Your task to perform on an android device: turn notification dots on Image 0: 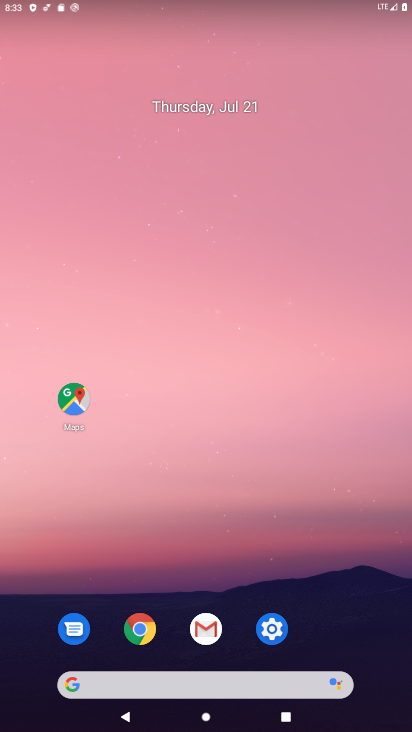
Step 0: click (260, 627)
Your task to perform on an android device: turn notification dots on Image 1: 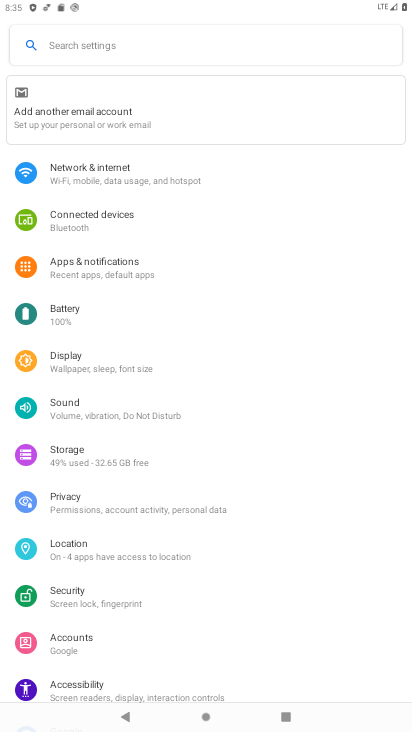
Step 1: click (108, 54)
Your task to perform on an android device: turn notification dots on Image 2: 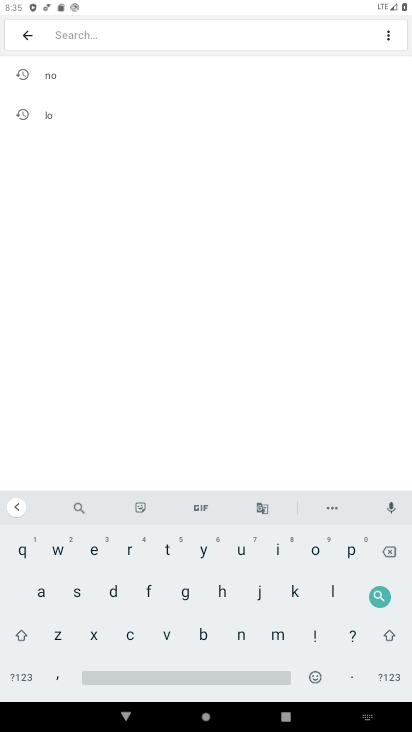
Step 2: click (244, 628)
Your task to perform on an android device: turn notification dots on Image 3: 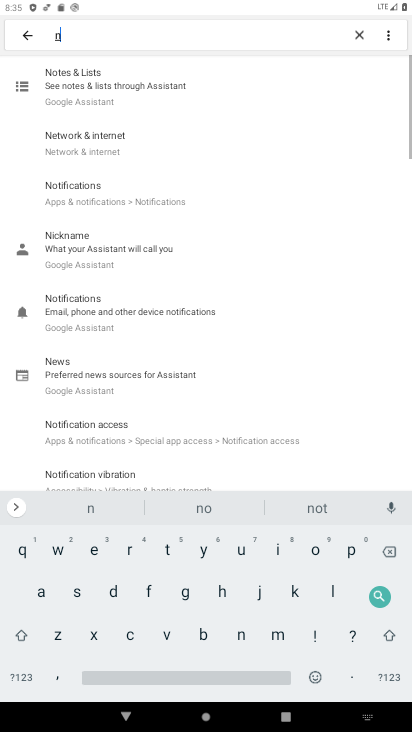
Step 3: click (320, 553)
Your task to perform on an android device: turn notification dots on Image 4: 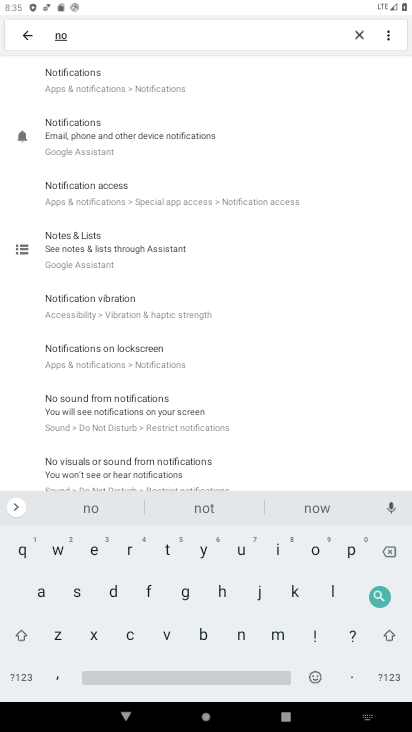
Step 4: click (68, 80)
Your task to perform on an android device: turn notification dots on Image 5: 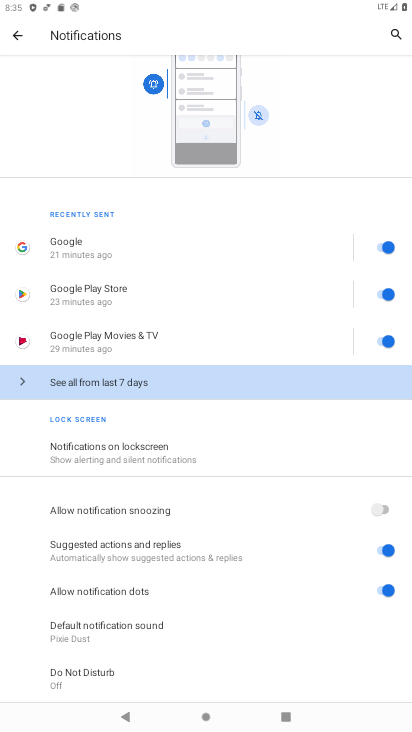
Step 5: click (242, 600)
Your task to perform on an android device: turn notification dots on Image 6: 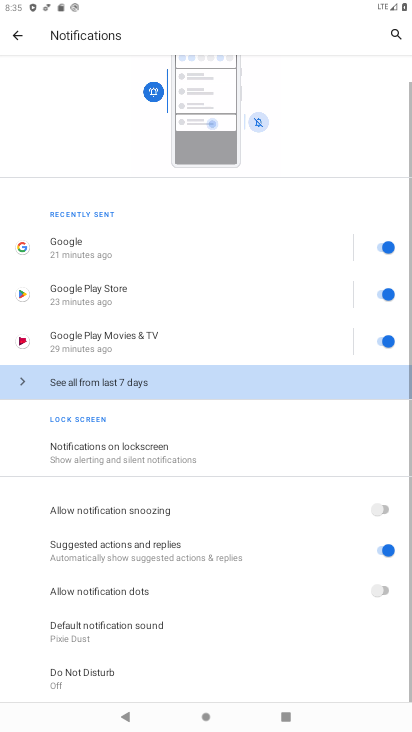
Step 6: click (243, 600)
Your task to perform on an android device: turn notification dots on Image 7: 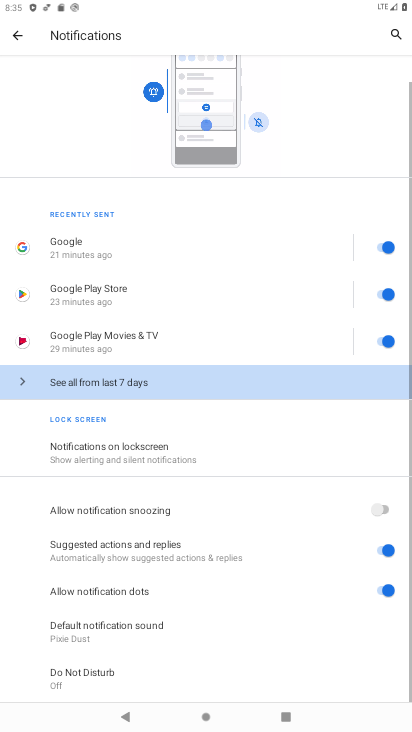
Step 7: task complete